Your task to perform on an android device: When is my next meeting? Image 0: 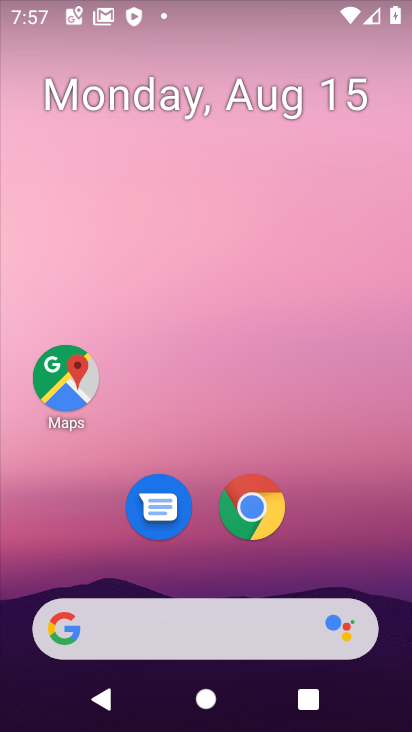
Step 0: drag from (205, 586) to (170, 45)
Your task to perform on an android device: When is my next meeting? Image 1: 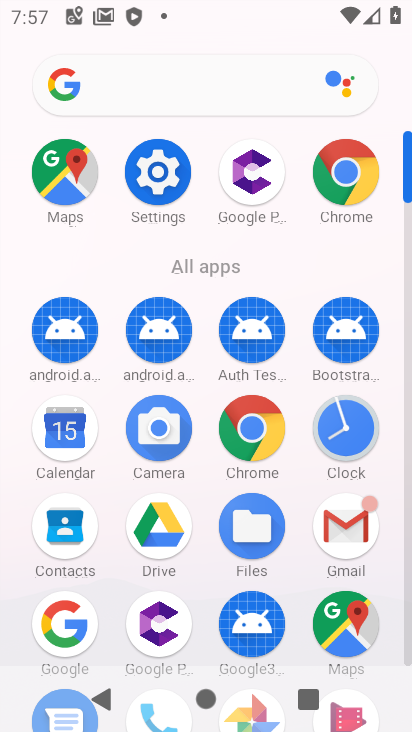
Step 1: click (42, 432)
Your task to perform on an android device: When is my next meeting? Image 2: 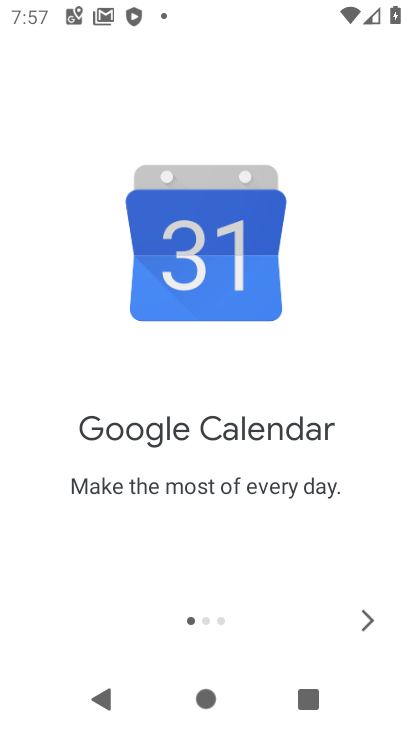
Step 2: click (371, 625)
Your task to perform on an android device: When is my next meeting? Image 3: 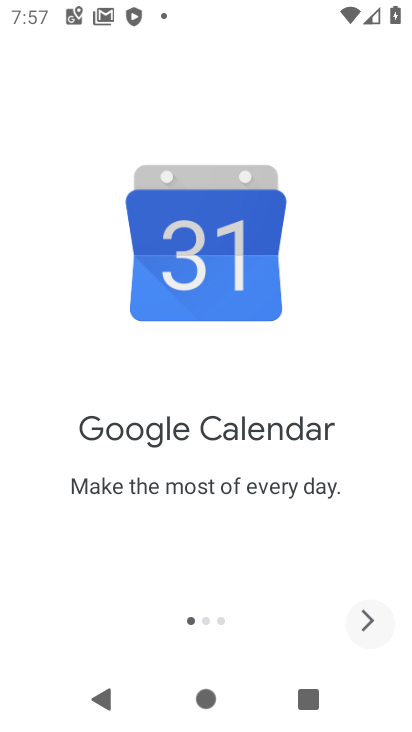
Step 3: click (371, 625)
Your task to perform on an android device: When is my next meeting? Image 4: 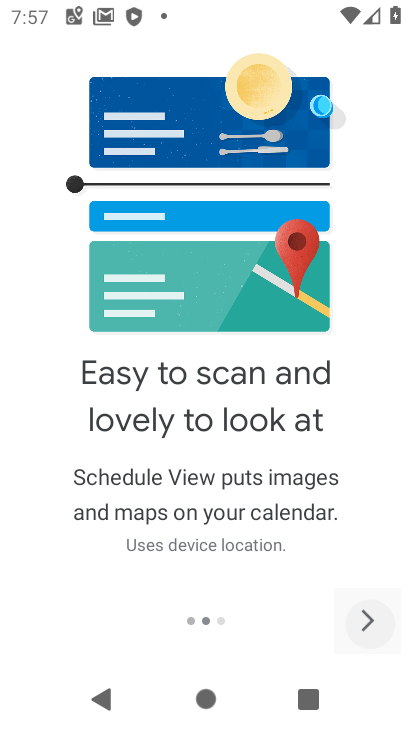
Step 4: click (371, 625)
Your task to perform on an android device: When is my next meeting? Image 5: 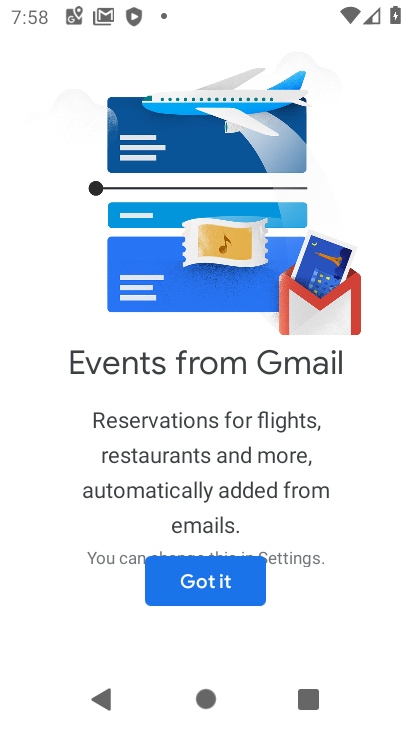
Step 5: click (371, 625)
Your task to perform on an android device: When is my next meeting? Image 6: 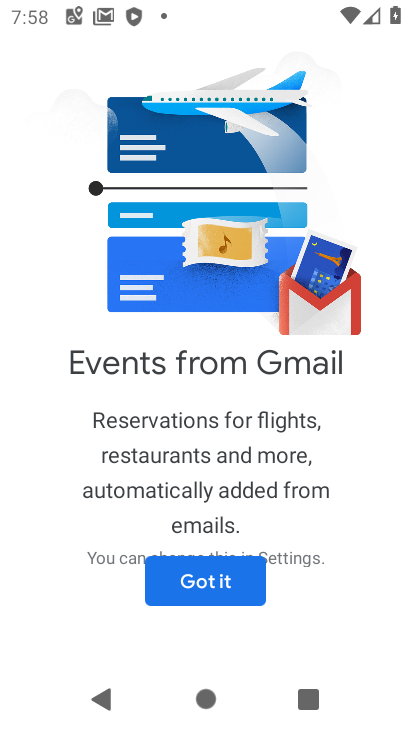
Step 6: click (238, 571)
Your task to perform on an android device: When is my next meeting? Image 7: 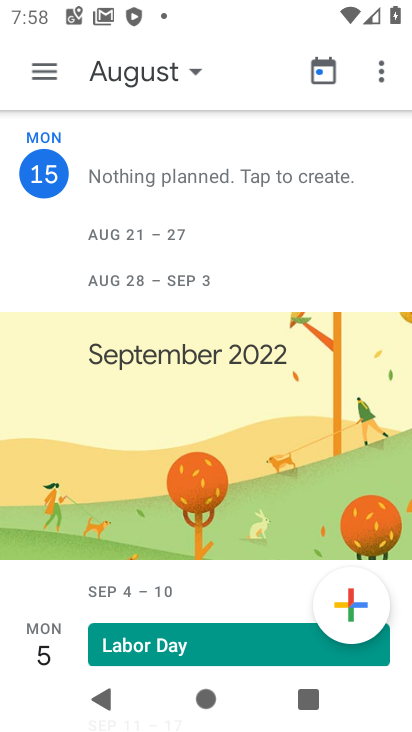
Step 7: task complete